Your task to perform on an android device: turn vacation reply on in the gmail app Image 0: 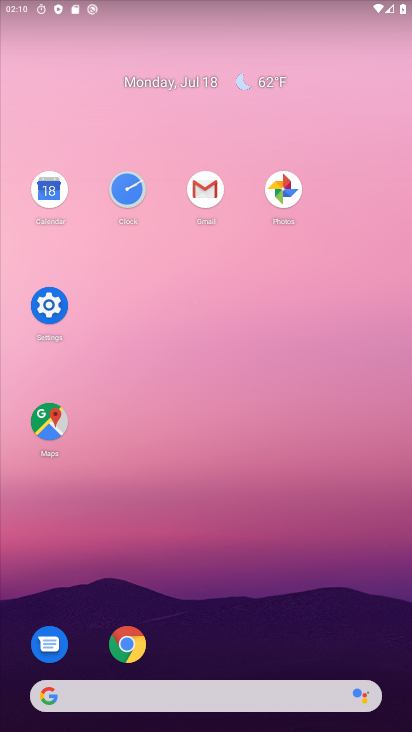
Step 0: click (207, 185)
Your task to perform on an android device: turn vacation reply on in the gmail app Image 1: 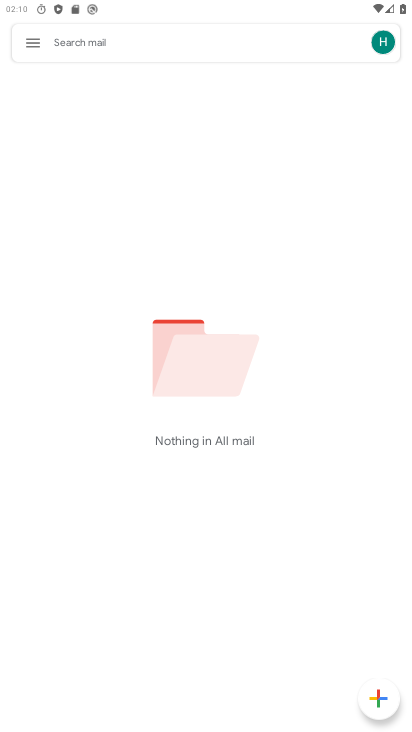
Step 1: click (25, 51)
Your task to perform on an android device: turn vacation reply on in the gmail app Image 2: 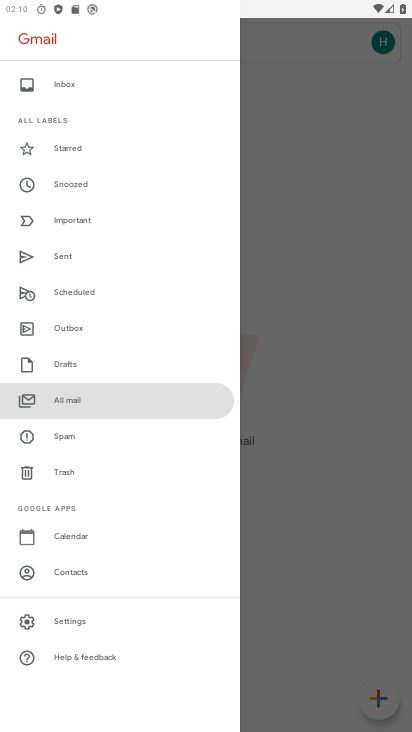
Step 2: click (89, 617)
Your task to perform on an android device: turn vacation reply on in the gmail app Image 3: 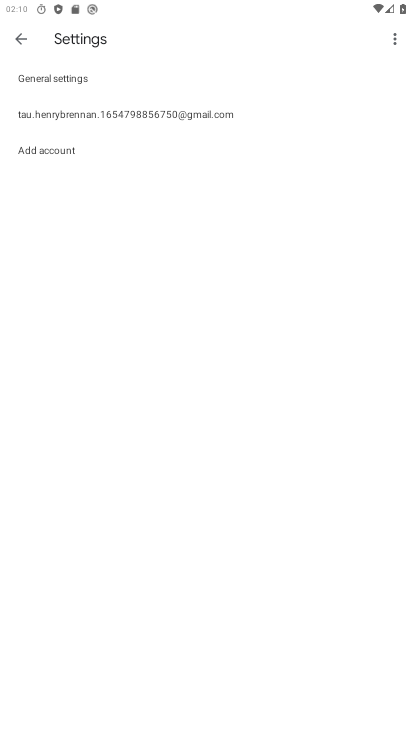
Step 3: click (80, 112)
Your task to perform on an android device: turn vacation reply on in the gmail app Image 4: 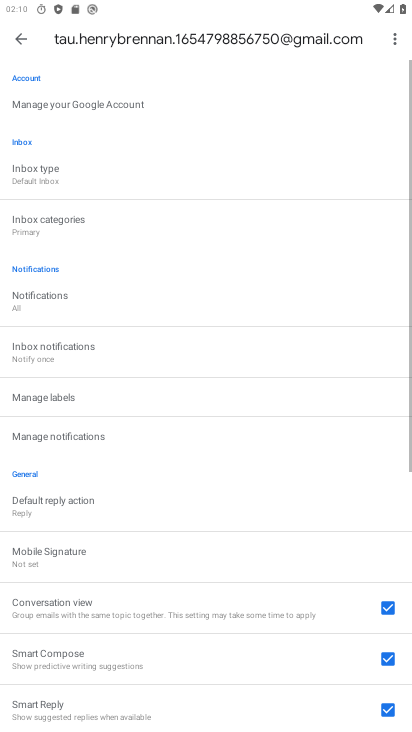
Step 4: drag from (234, 554) to (244, 238)
Your task to perform on an android device: turn vacation reply on in the gmail app Image 5: 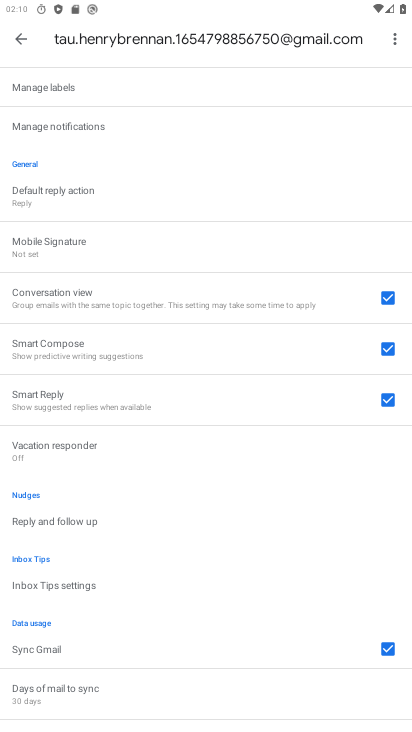
Step 5: click (166, 441)
Your task to perform on an android device: turn vacation reply on in the gmail app Image 6: 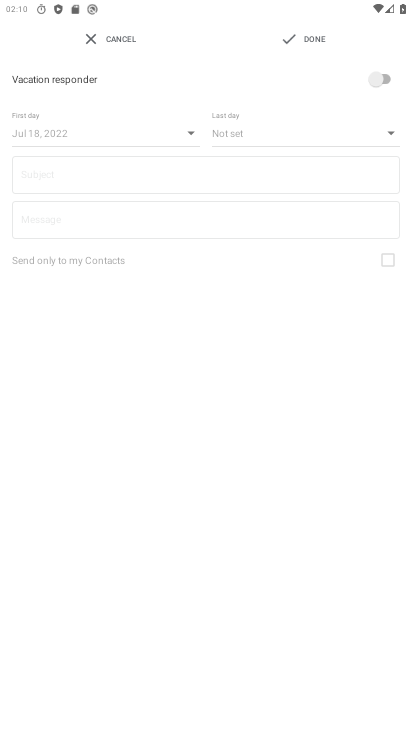
Step 6: click (379, 80)
Your task to perform on an android device: turn vacation reply on in the gmail app Image 7: 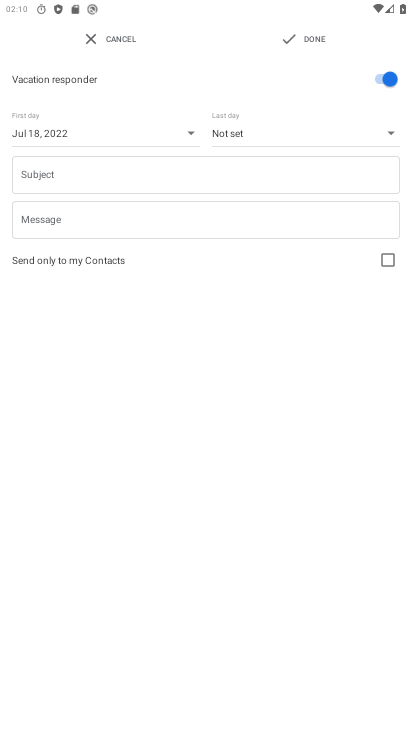
Step 7: click (313, 43)
Your task to perform on an android device: turn vacation reply on in the gmail app Image 8: 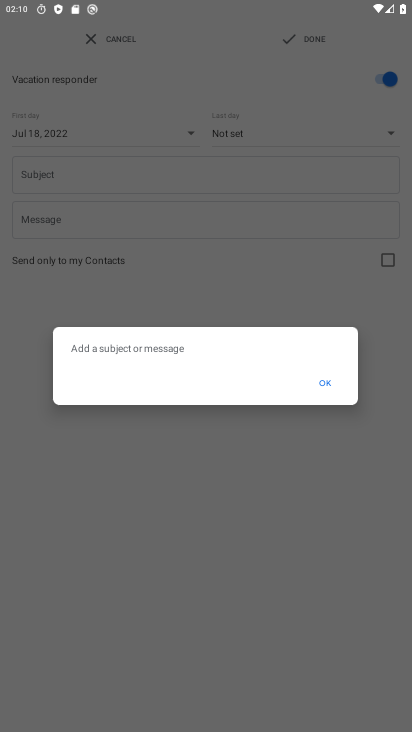
Step 8: click (331, 375)
Your task to perform on an android device: turn vacation reply on in the gmail app Image 9: 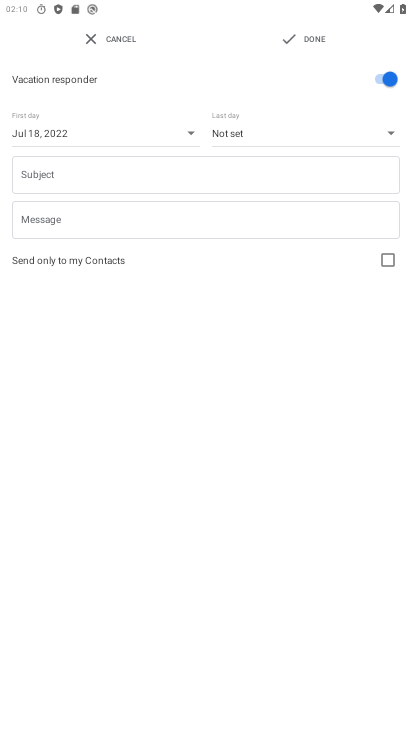
Step 9: task complete